Your task to perform on an android device: add a label to a message in the gmail app Image 0: 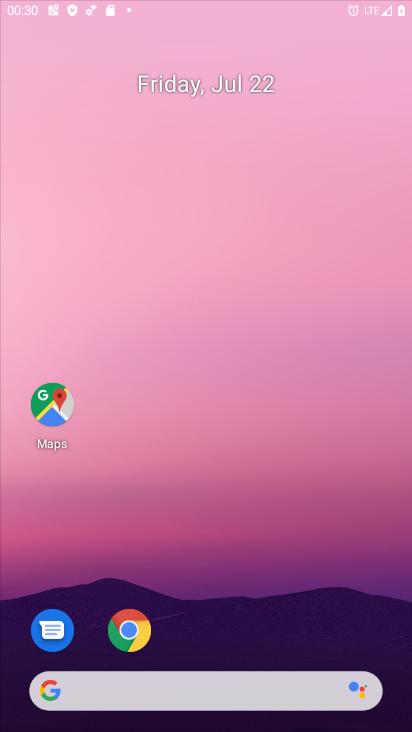
Step 0: click (128, 643)
Your task to perform on an android device: add a label to a message in the gmail app Image 1: 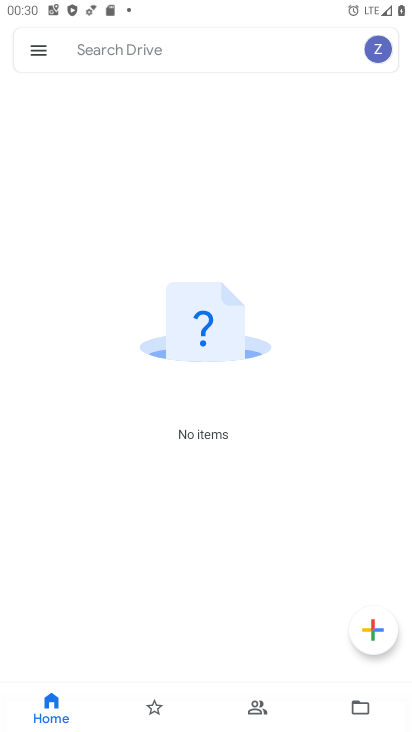
Step 1: press home button
Your task to perform on an android device: add a label to a message in the gmail app Image 2: 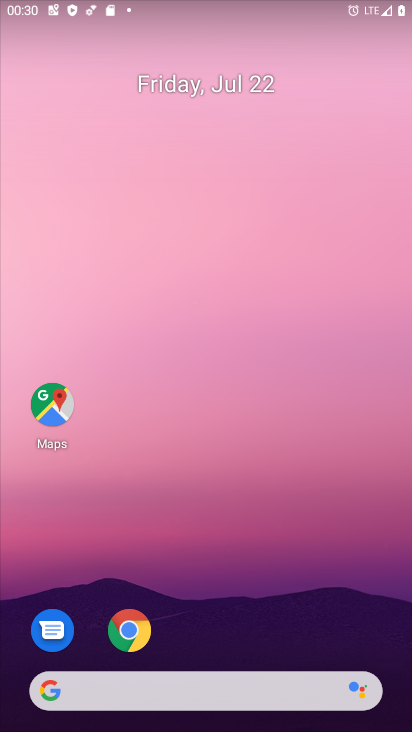
Step 2: drag from (200, 647) to (65, 164)
Your task to perform on an android device: add a label to a message in the gmail app Image 3: 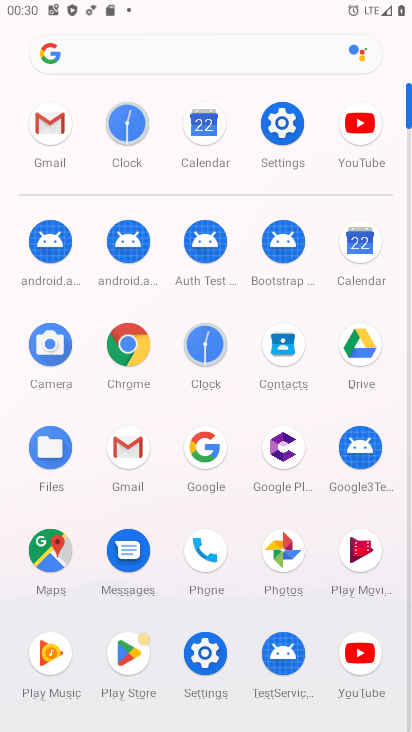
Step 3: click (59, 128)
Your task to perform on an android device: add a label to a message in the gmail app Image 4: 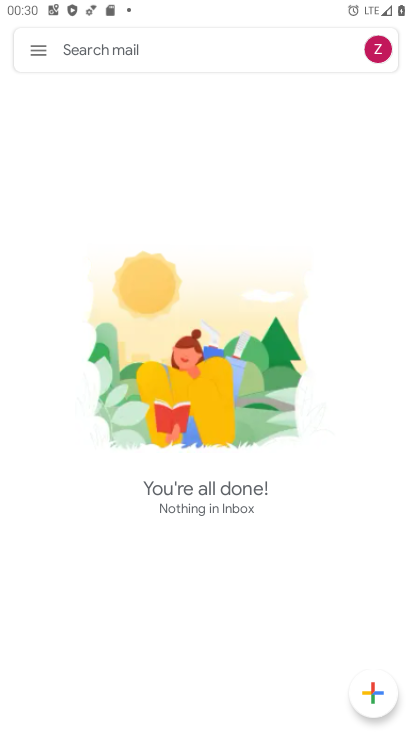
Step 4: click (36, 45)
Your task to perform on an android device: add a label to a message in the gmail app Image 5: 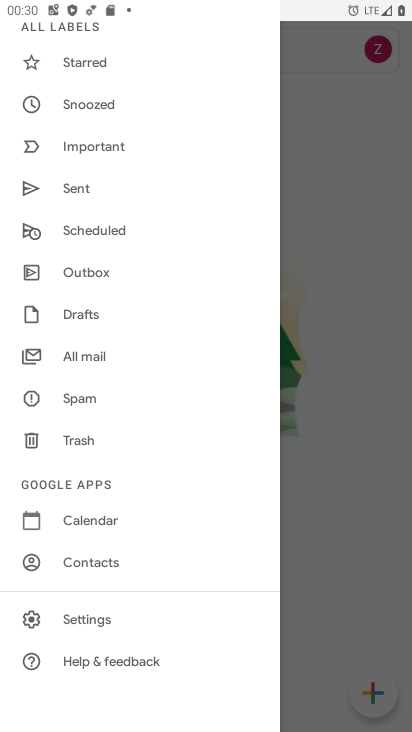
Step 5: click (330, 275)
Your task to perform on an android device: add a label to a message in the gmail app Image 6: 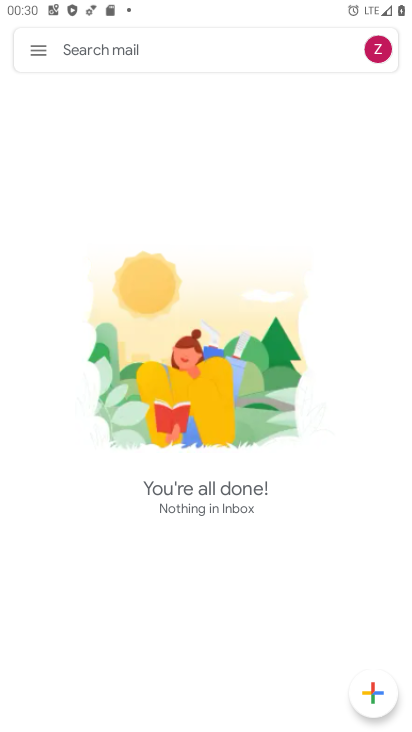
Step 6: task complete